Your task to perform on an android device: Search for Italian restaurants on Maps Image 0: 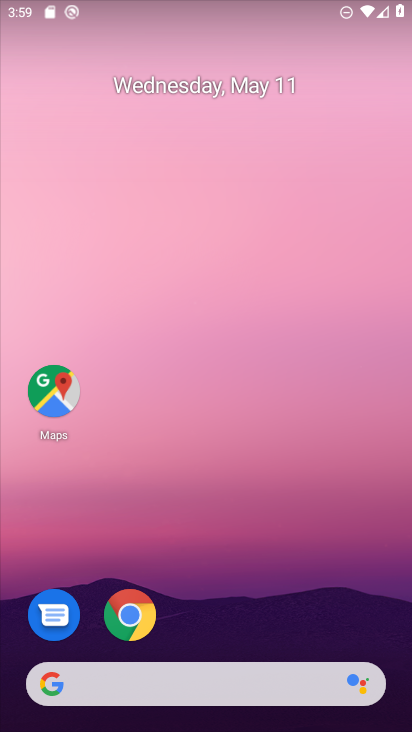
Step 0: click (52, 394)
Your task to perform on an android device: Search for Italian restaurants on Maps Image 1: 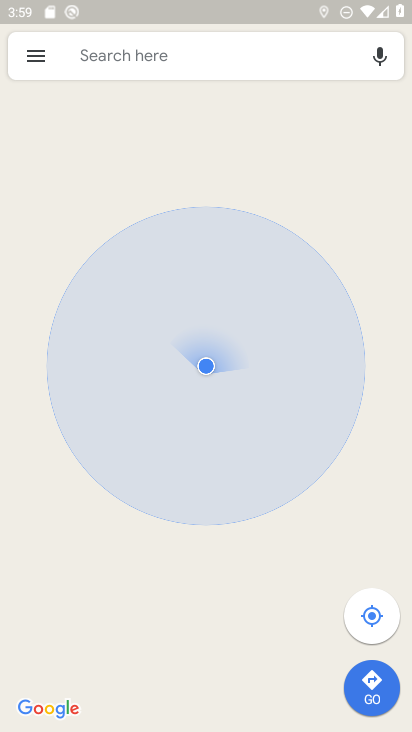
Step 1: click (262, 56)
Your task to perform on an android device: Search for Italian restaurants on Maps Image 2: 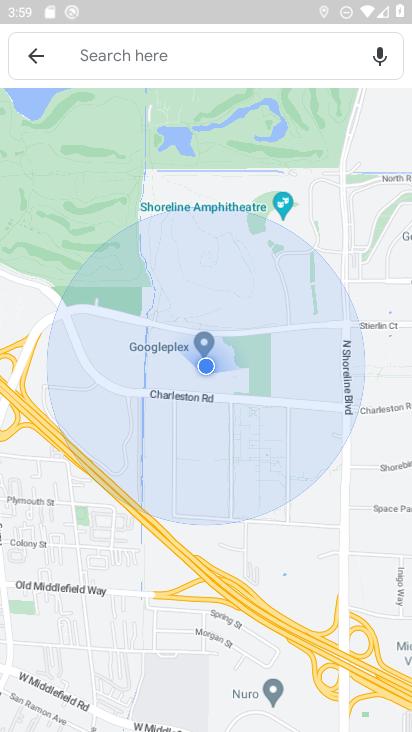
Step 2: click (236, 58)
Your task to perform on an android device: Search for Italian restaurants on Maps Image 3: 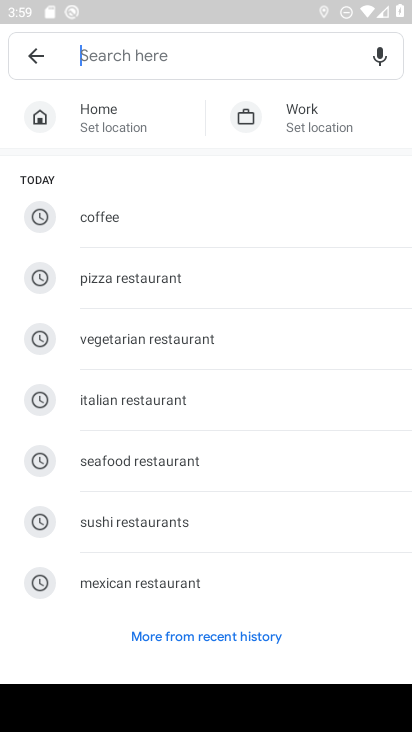
Step 3: click (120, 405)
Your task to perform on an android device: Search for Italian restaurants on Maps Image 4: 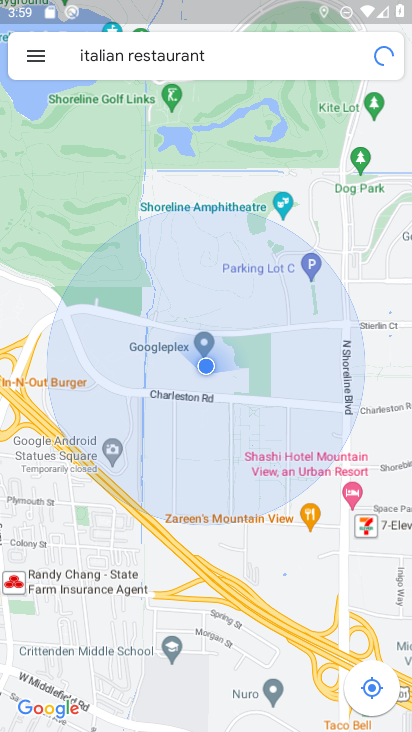
Step 4: task complete